Your task to perform on an android device: find photos in the google photos app Image 0: 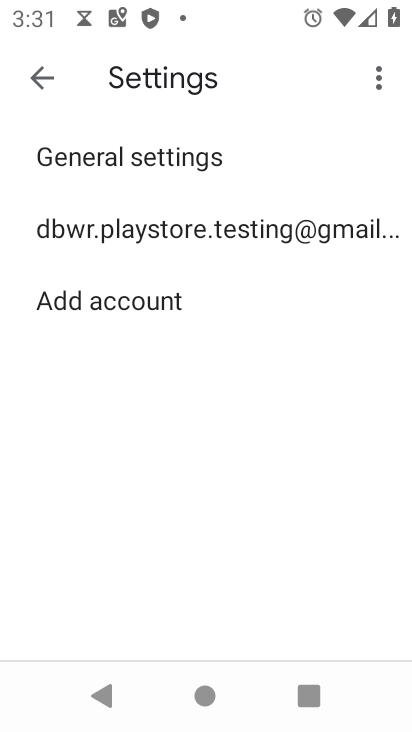
Step 0: press home button
Your task to perform on an android device: find photos in the google photos app Image 1: 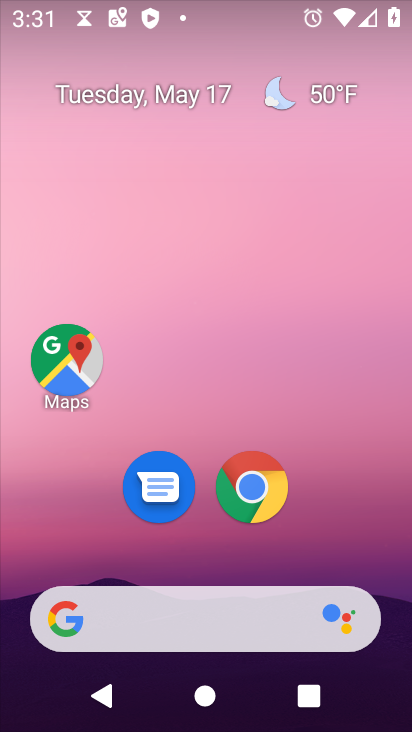
Step 1: drag from (399, 629) to (319, 24)
Your task to perform on an android device: find photos in the google photos app Image 2: 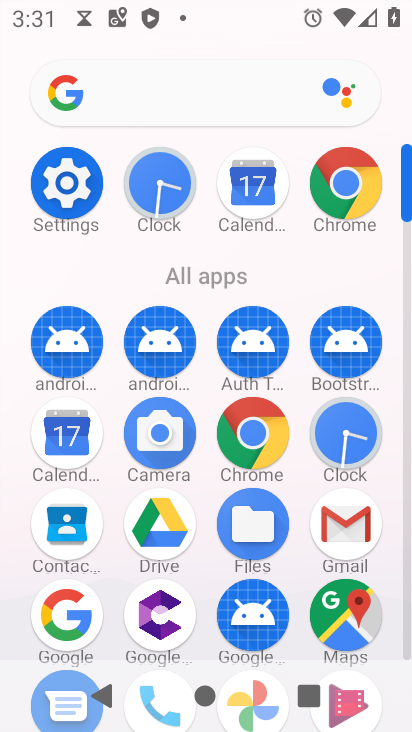
Step 2: click (406, 631)
Your task to perform on an android device: find photos in the google photos app Image 3: 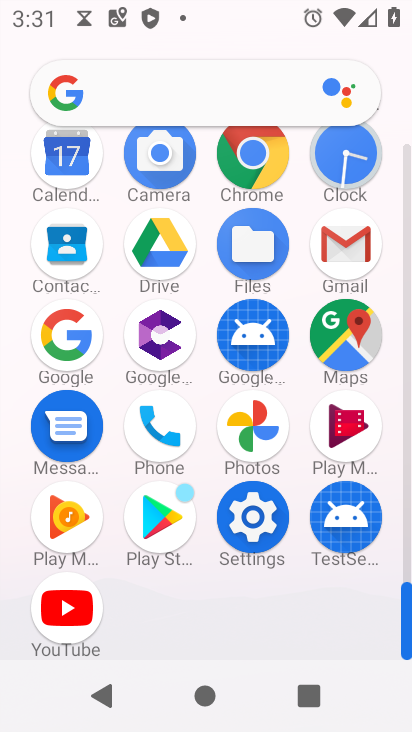
Step 3: click (254, 418)
Your task to perform on an android device: find photos in the google photos app Image 4: 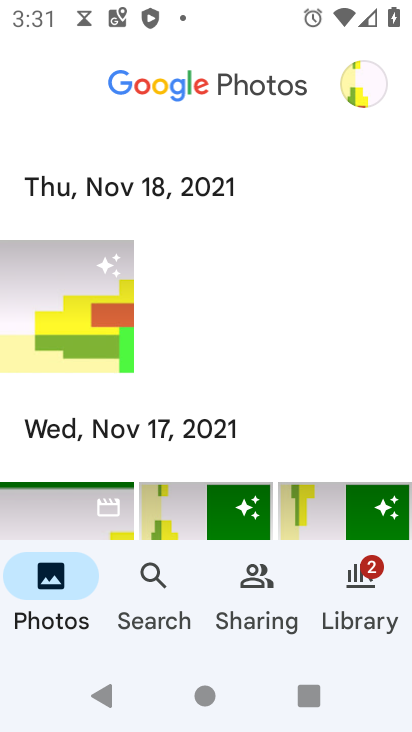
Step 4: task complete